Your task to perform on an android device: Is it going to rain this weekend? Image 0: 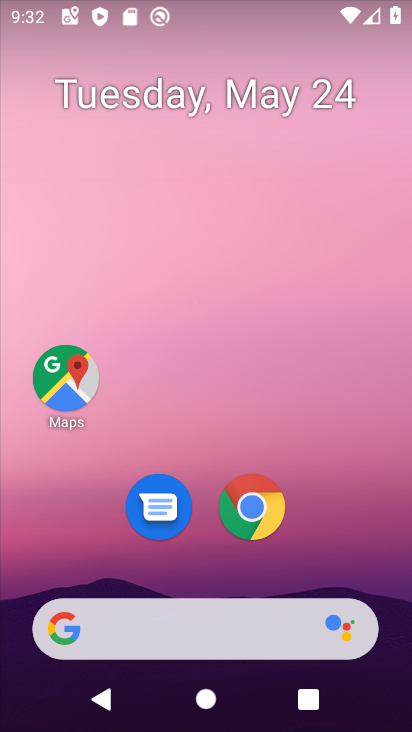
Step 0: click (166, 635)
Your task to perform on an android device: Is it going to rain this weekend? Image 1: 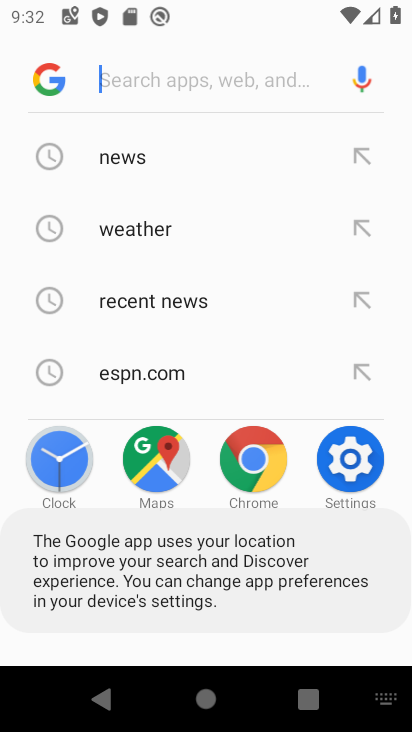
Step 1: click (168, 239)
Your task to perform on an android device: Is it going to rain this weekend? Image 2: 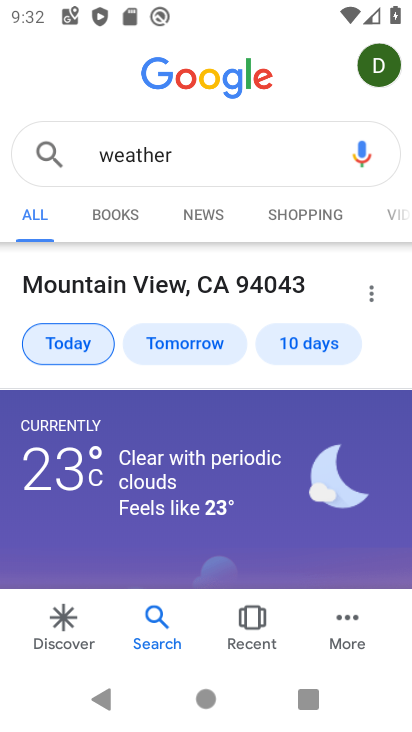
Step 2: drag from (201, 570) to (331, 264)
Your task to perform on an android device: Is it going to rain this weekend? Image 3: 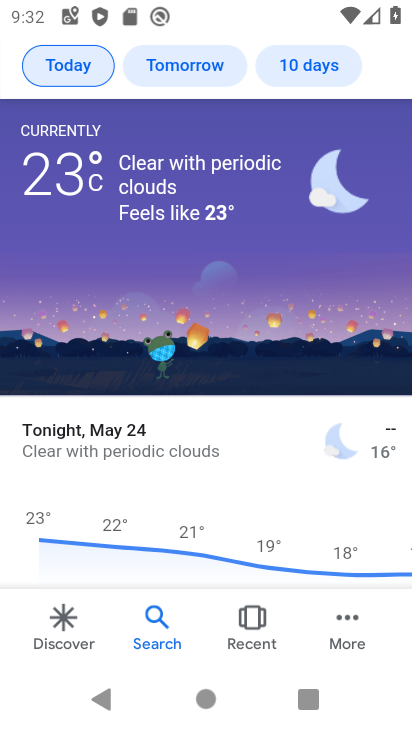
Step 3: drag from (184, 485) to (310, 212)
Your task to perform on an android device: Is it going to rain this weekend? Image 4: 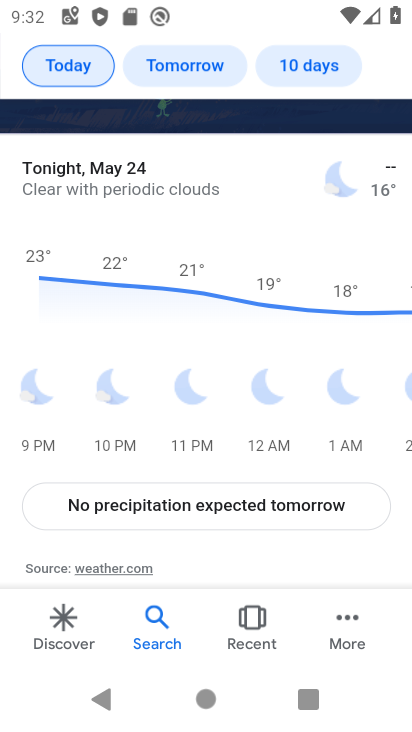
Step 4: drag from (161, 463) to (274, 177)
Your task to perform on an android device: Is it going to rain this weekend? Image 5: 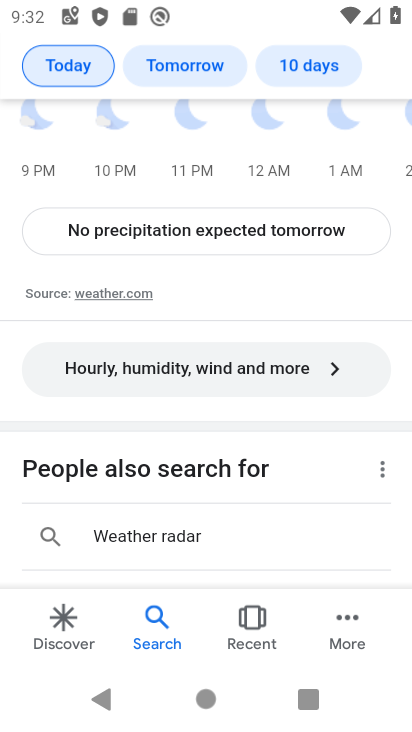
Step 5: drag from (201, 420) to (326, 109)
Your task to perform on an android device: Is it going to rain this weekend? Image 6: 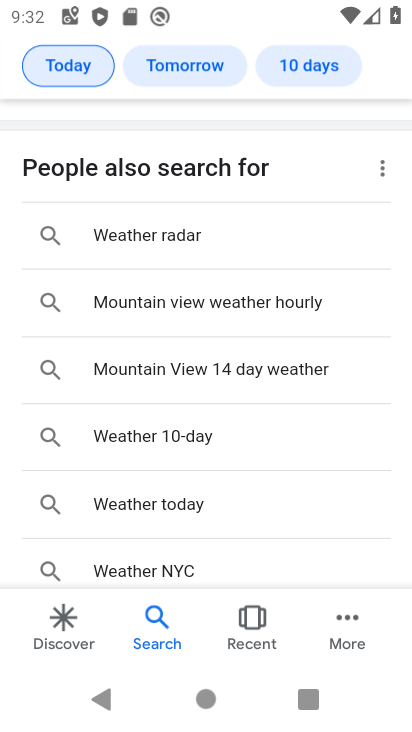
Step 6: drag from (115, 377) to (221, 81)
Your task to perform on an android device: Is it going to rain this weekend? Image 7: 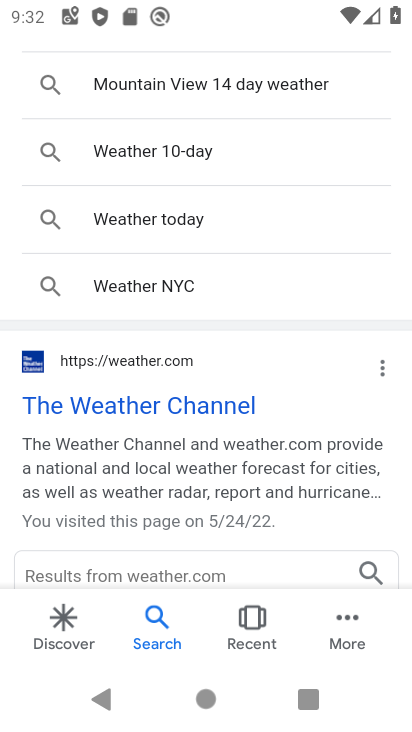
Step 7: click (170, 401)
Your task to perform on an android device: Is it going to rain this weekend? Image 8: 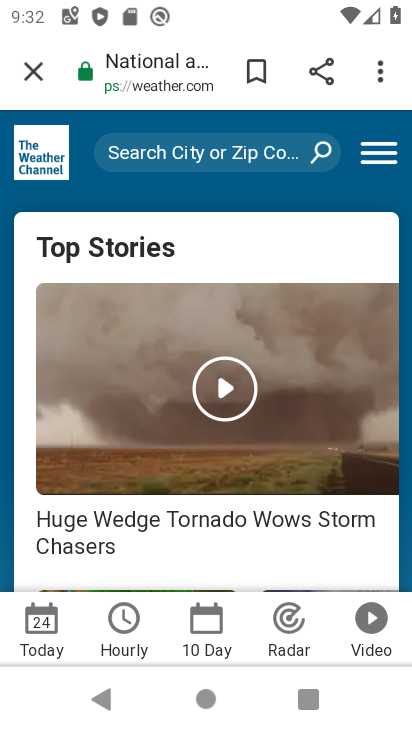
Step 8: click (187, 641)
Your task to perform on an android device: Is it going to rain this weekend? Image 9: 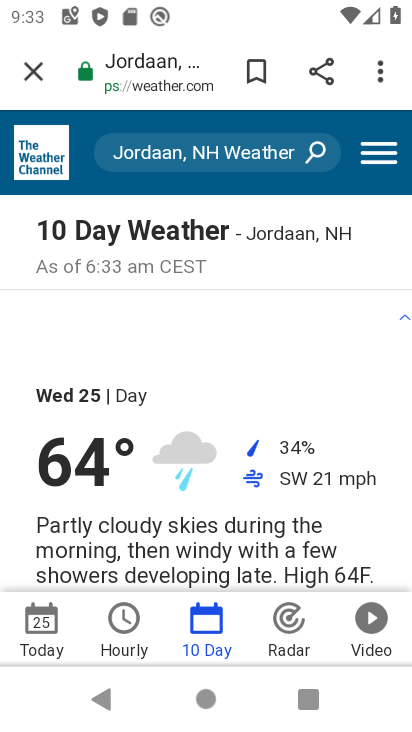
Step 9: drag from (171, 558) to (245, 215)
Your task to perform on an android device: Is it going to rain this weekend? Image 10: 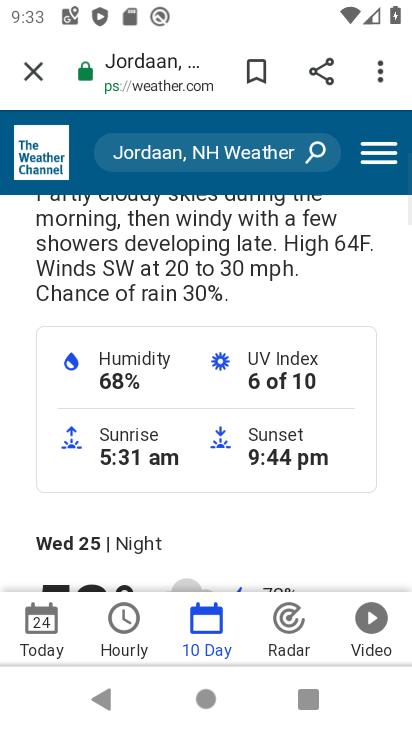
Step 10: drag from (140, 513) to (251, 131)
Your task to perform on an android device: Is it going to rain this weekend? Image 11: 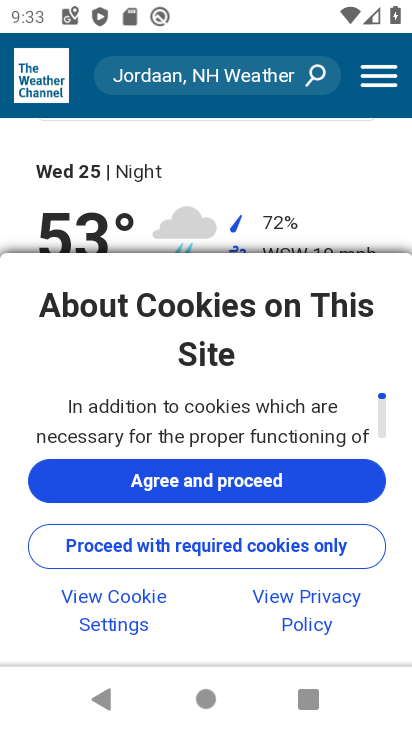
Step 11: drag from (156, 513) to (218, 263)
Your task to perform on an android device: Is it going to rain this weekend? Image 12: 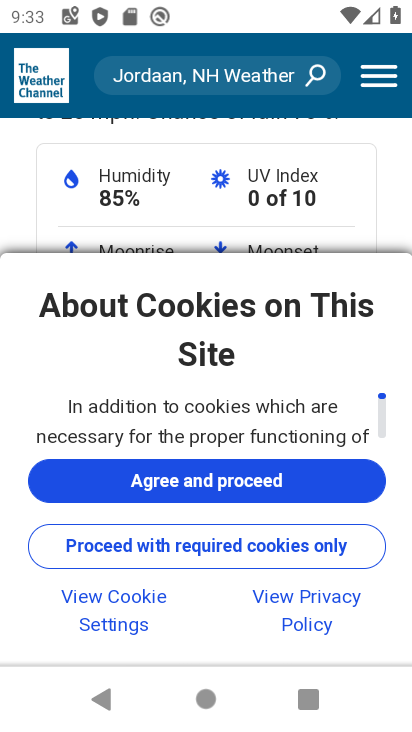
Step 12: click (192, 473)
Your task to perform on an android device: Is it going to rain this weekend? Image 13: 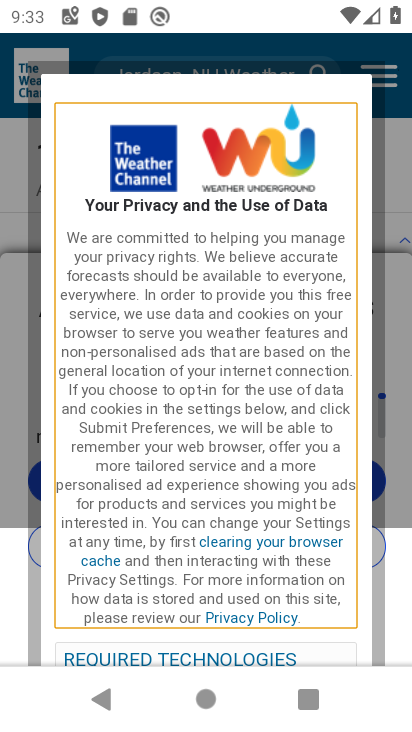
Step 13: drag from (239, 549) to (321, 132)
Your task to perform on an android device: Is it going to rain this weekend? Image 14: 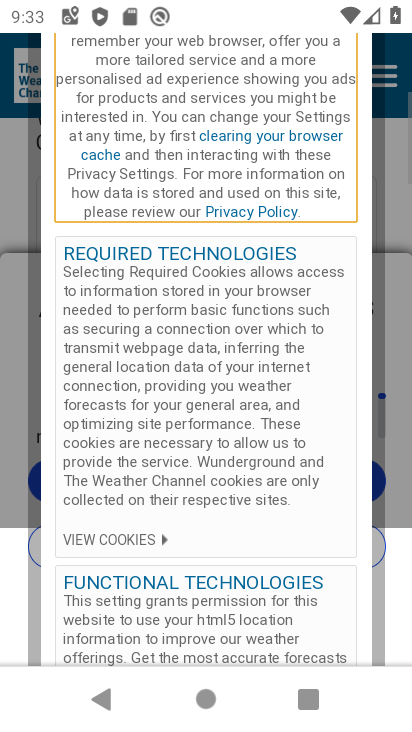
Step 14: drag from (238, 397) to (339, 150)
Your task to perform on an android device: Is it going to rain this weekend? Image 15: 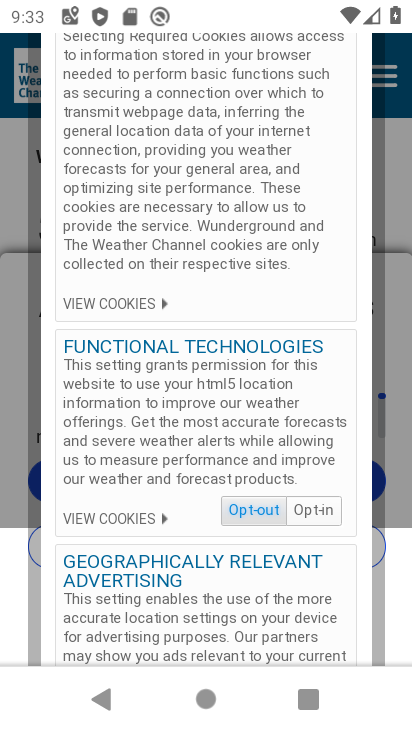
Step 15: drag from (181, 499) to (278, 155)
Your task to perform on an android device: Is it going to rain this weekend? Image 16: 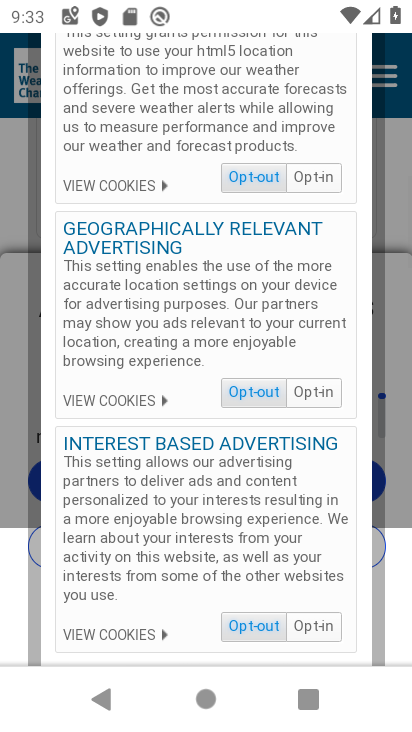
Step 16: drag from (155, 490) to (267, 87)
Your task to perform on an android device: Is it going to rain this weekend? Image 17: 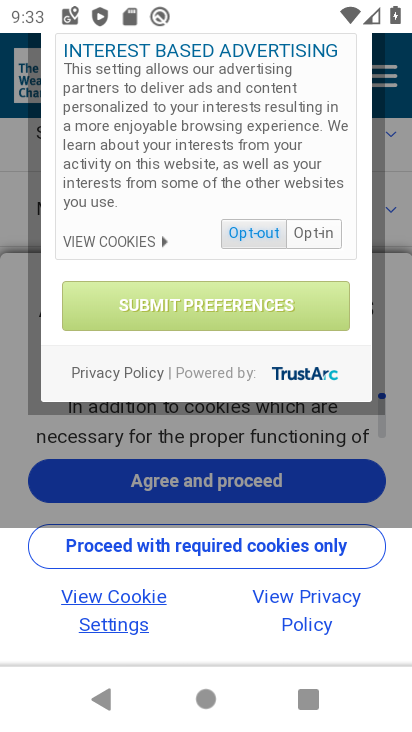
Step 17: click (254, 302)
Your task to perform on an android device: Is it going to rain this weekend? Image 18: 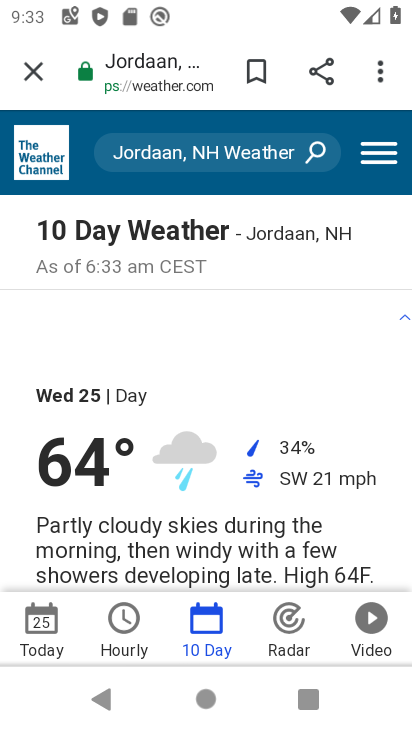
Step 18: task complete